Your task to perform on an android device: set an alarm Image 0: 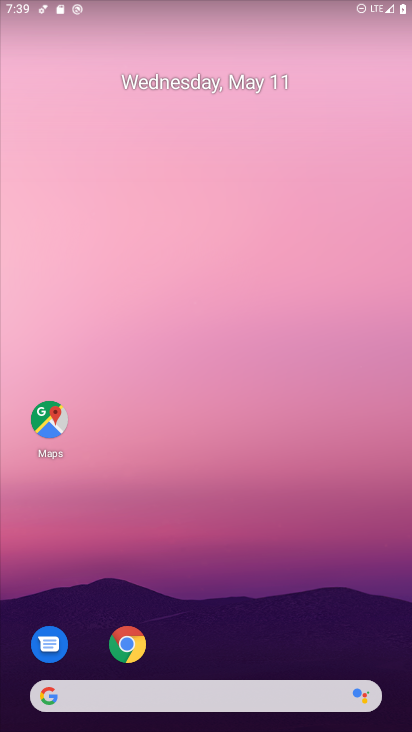
Step 0: drag from (201, 604) to (166, 0)
Your task to perform on an android device: set an alarm Image 1: 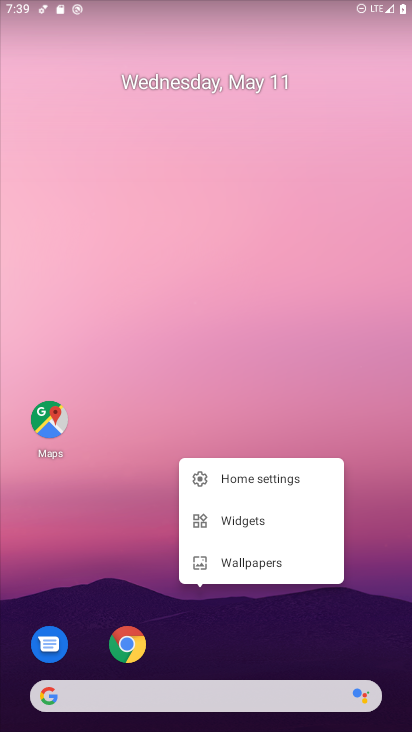
Step 1: click (125, 520)
Your task to perform on an android device: set an alarm Image 2: 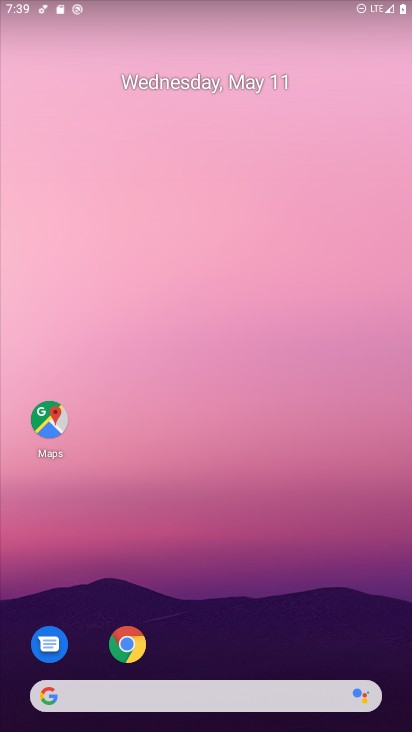
Step 2: drag from (267, 601) to (113, 49)
Your task to perform on an android device: set an alarm Image 3: 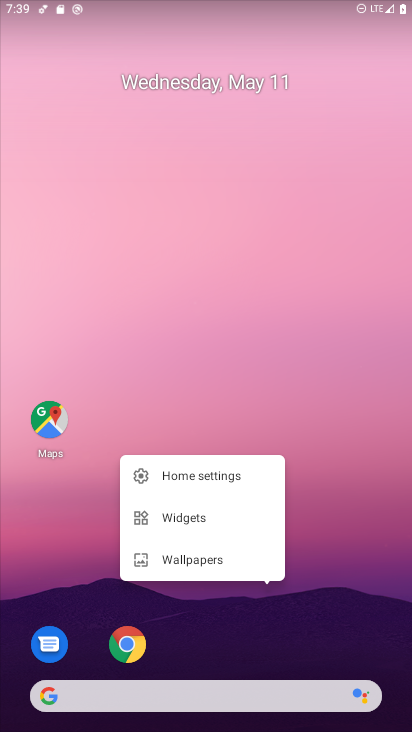
Step 3: click (331, 506)
Your task to perform on an android device: set an alarm Image 4: 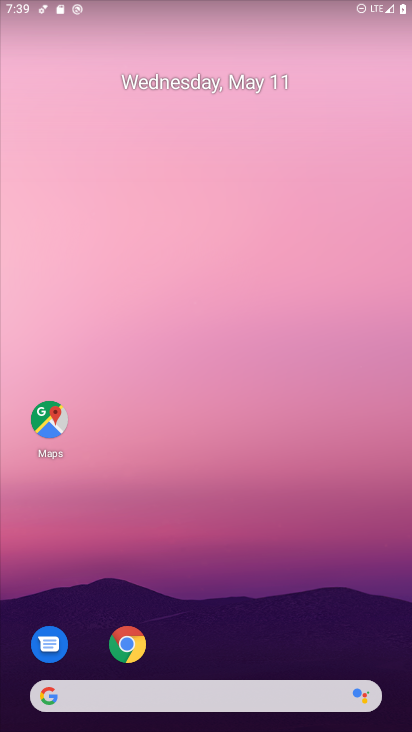
Step 4: drag from (231, 621) to (173, 73)
Your task to perform on an android device: set an alarm Image 5: 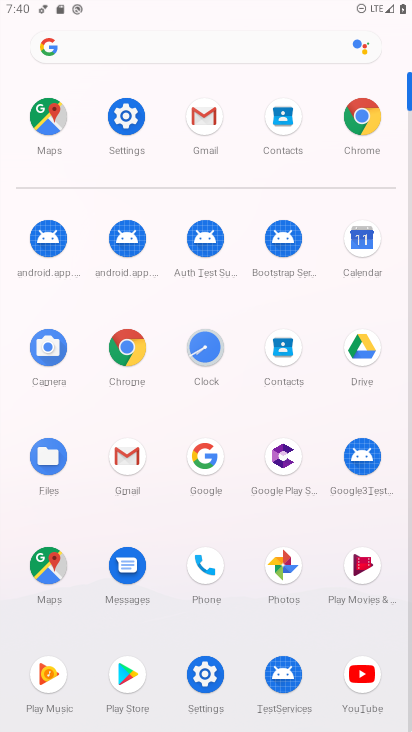
Step 5: click (203, 342)
Your task to perform on an android device: set an alarm Image 6: 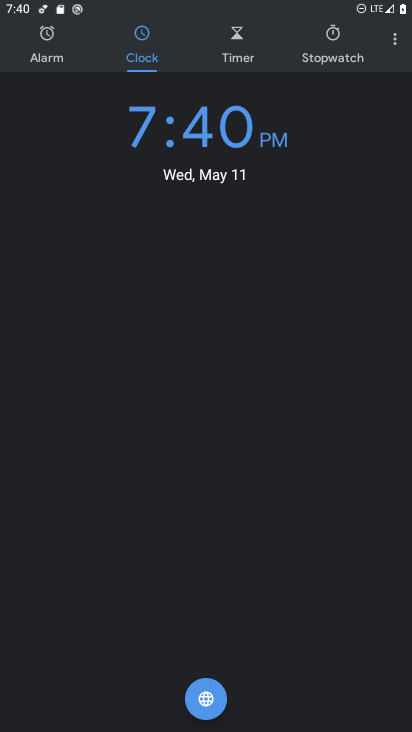
Step 6: click (36, 48)
Your task to perform on an android device: set an alarm Image 7: 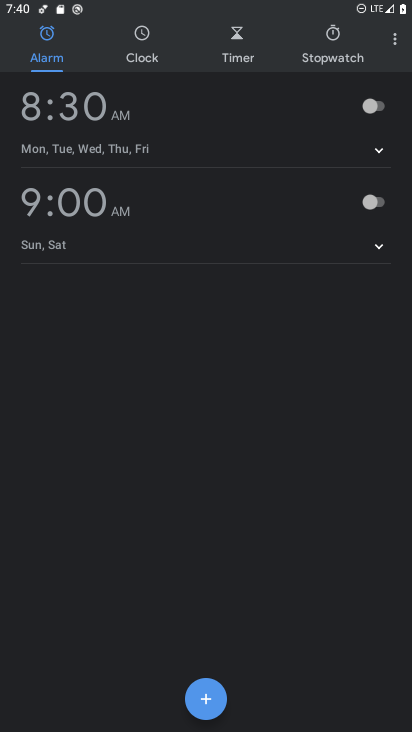
Step 7: click (204, 703)
Your task to perform on an android device: set an alarm Image 8: 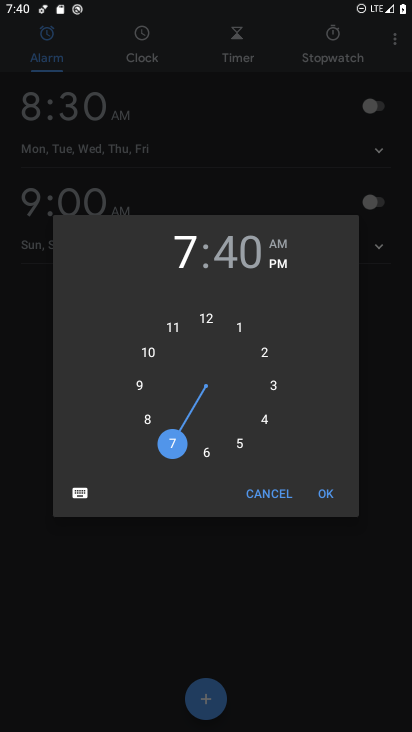
Step 8: click (320, 492)
Your task to perform on an android device: set an alarm Image 9: 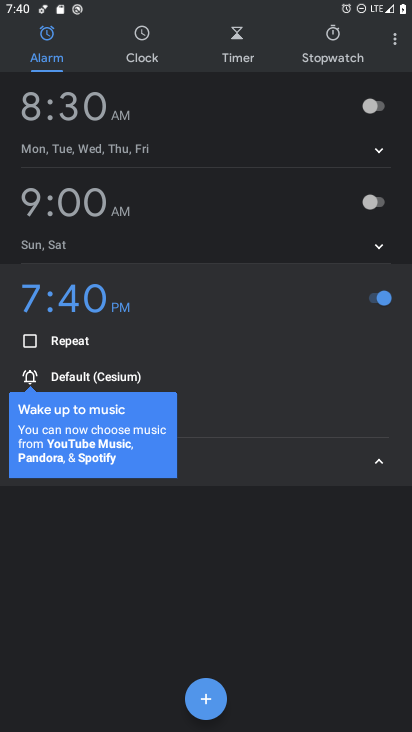
Step 9: task complete